Your task to perform on an android device: Open the Play Movies app and select the watchlist tab. Image 0: 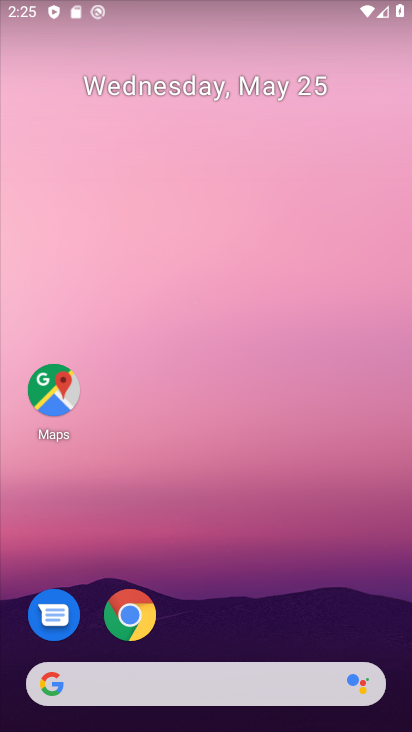
Step 0: drag from (315, 629) to (409, 616)
Your task to perform on an android device: Open the Play Movies app and select the watchlist tab. Image 1: 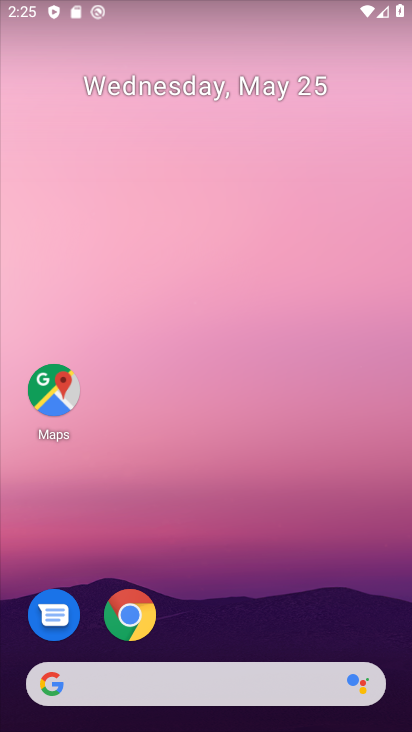
Step 1: drag from (273, 629) to (309, 8)
Your task to perform on an android device: Open the Play Movies app and select the watchlist tab. Image 2: 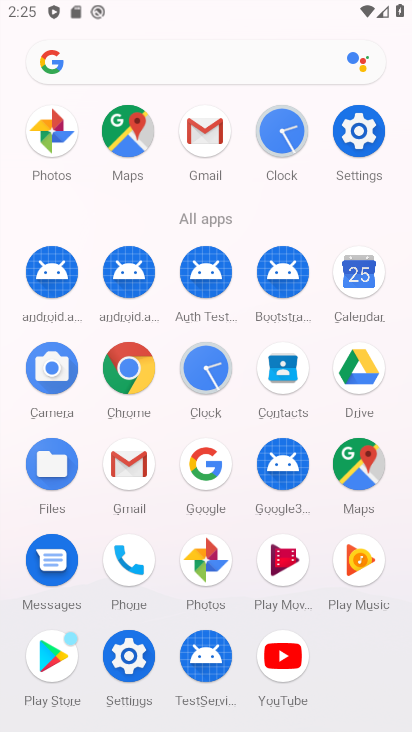
Step 2: click (285, 574)
Your task to perform on an android device: Open the Play Movies app and select the watchlist tab. Image 3: 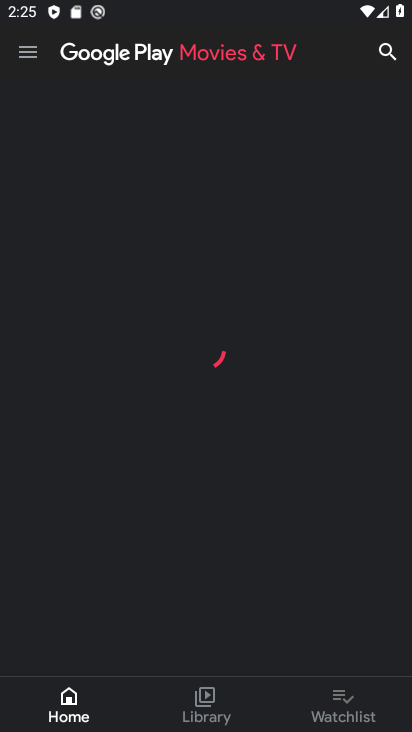
Step 3: click (316, 706)
Your task to perform on an android device: Open the Play Movies app and select the watchlist tab. Image 4: 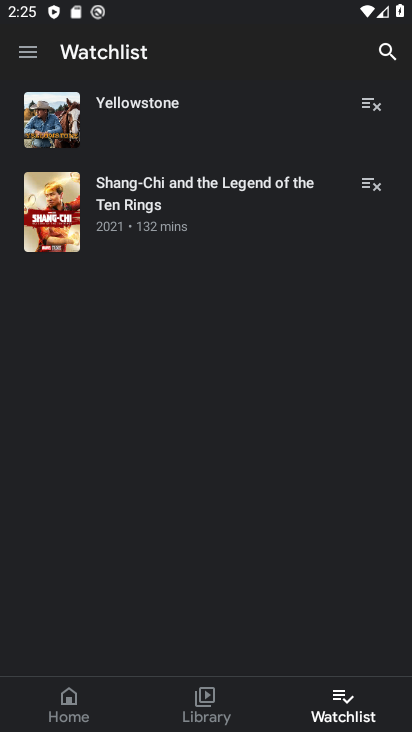
Step 4: task complete